Your task to perform on an android device: Search for apple airpods pro on amazon, select the first entry, and add it to the cart. Image 0: 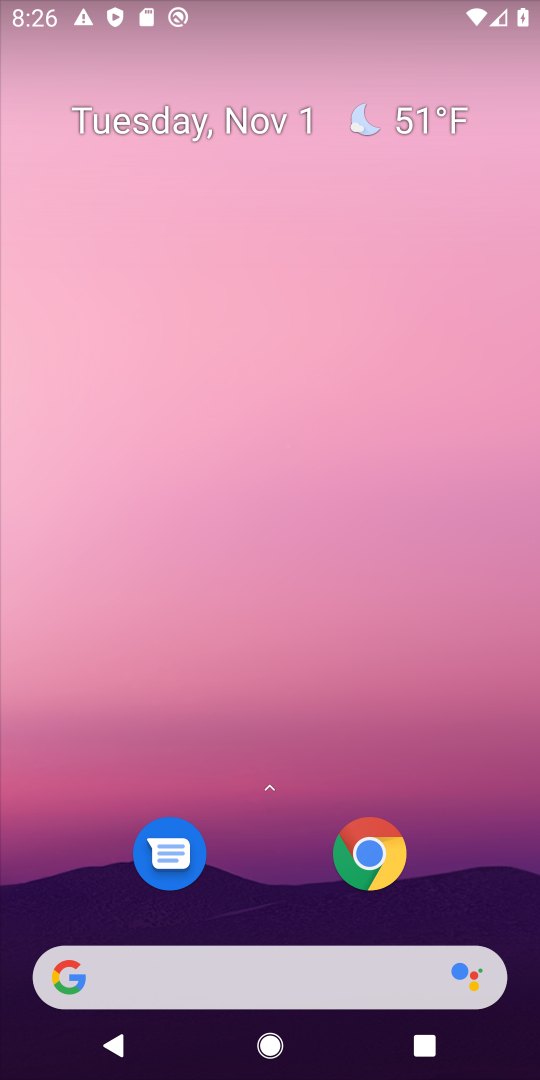
Step 0: click (276, 967)
Your task to perform on an android device: Search for apple airpods pro on amazon, select the first entry, and add it to the cart. Image 1: 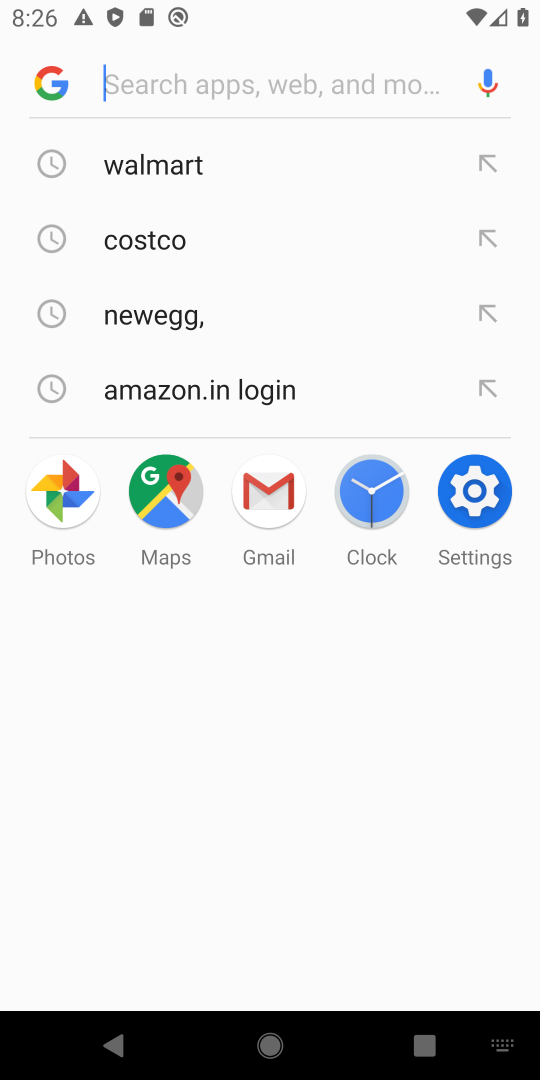
Step 1: task complete